Your task to perform on an android device: turn on showing notifications on the lock screen Image 0: 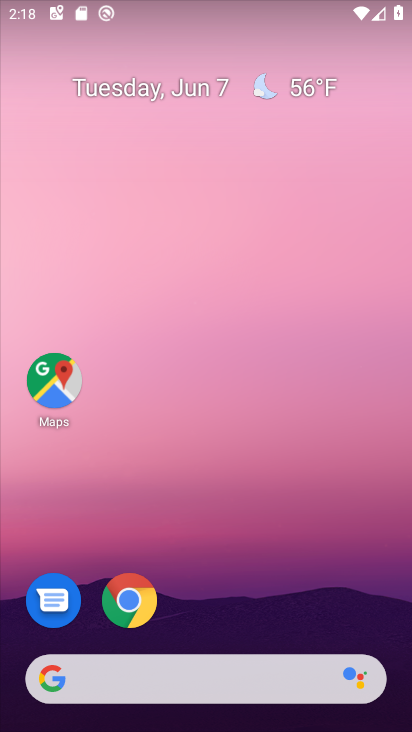
Step 0: drag from (241, 526) to (279, 4)
Your task to perform on an android device: turn on showing notifications on the lock screen Image 1: 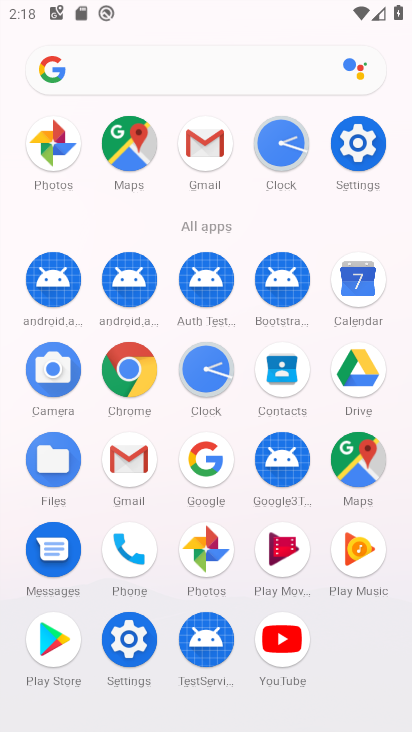
Step 1: click (130, 651)
Your task to perform on an android device: turn on showing notifications on the lock screen Image 2: 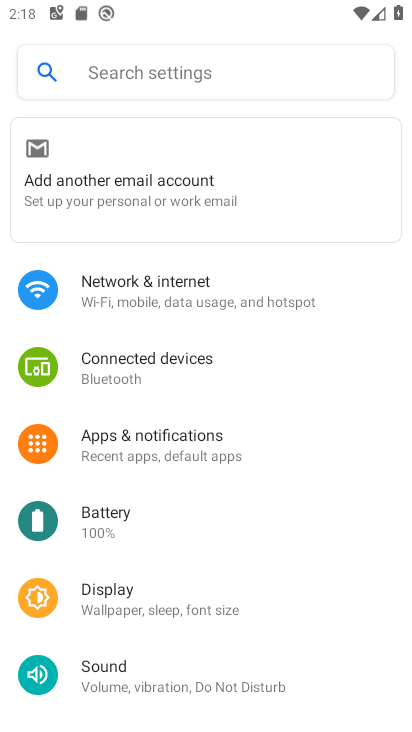
Step 2: click (188, 453)
Your task to perform on an android device: turn on showing notifications on the lock screen Image 3: 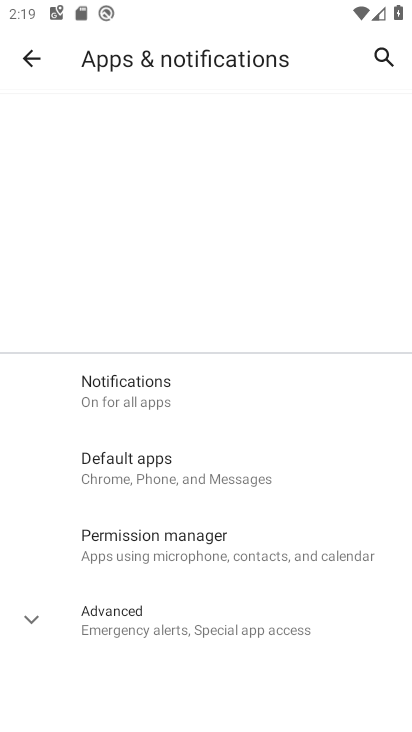
Step 3: click (166, 452)
Your task to perform on an android device: turn on showing notifications on the lock screen Image 4: 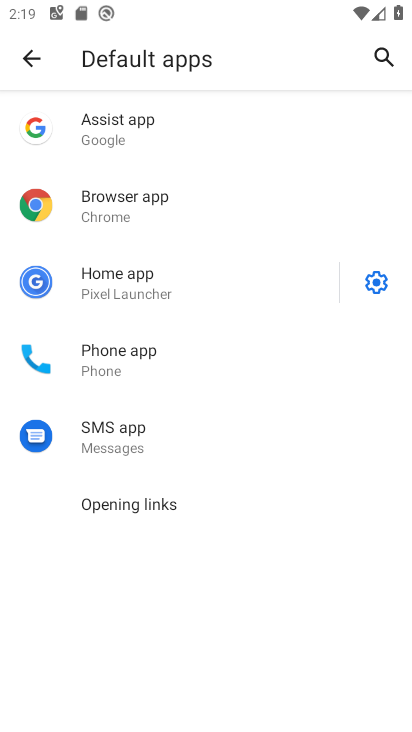
Step 4: click (44, 58)
Your task to perform on an android device: turn on showing notifications on the lock screen Image 5: 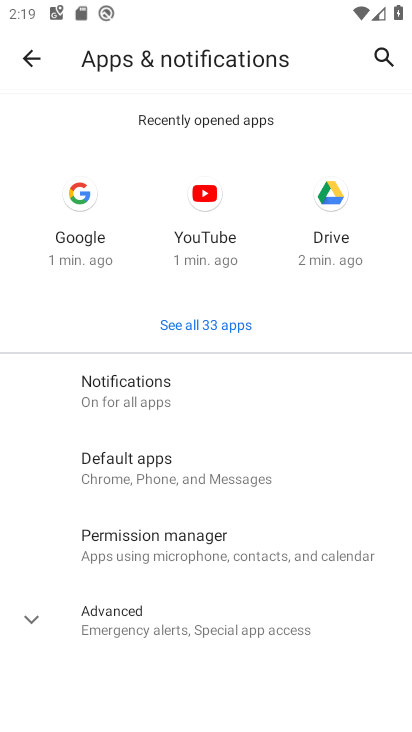
Step 5: click (120, 392)
Your task to perform on an android device: turn on showing notifications on the lock screen Image 6: 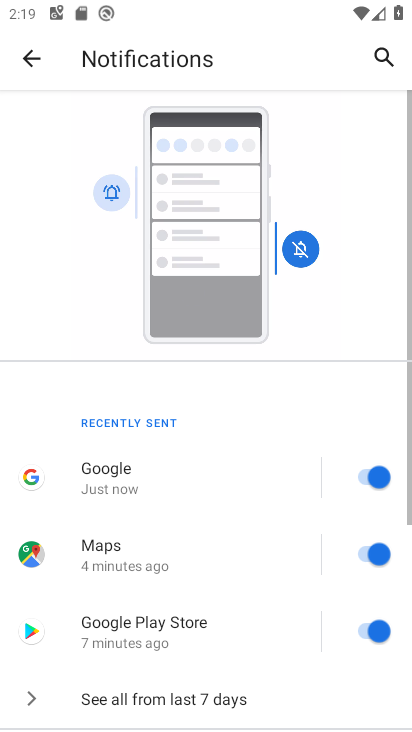
Step 6: drag from (184, 583) to (224, 351)
Your task to perform on an android device: turn on showing notifications on the lock screen Image 7: 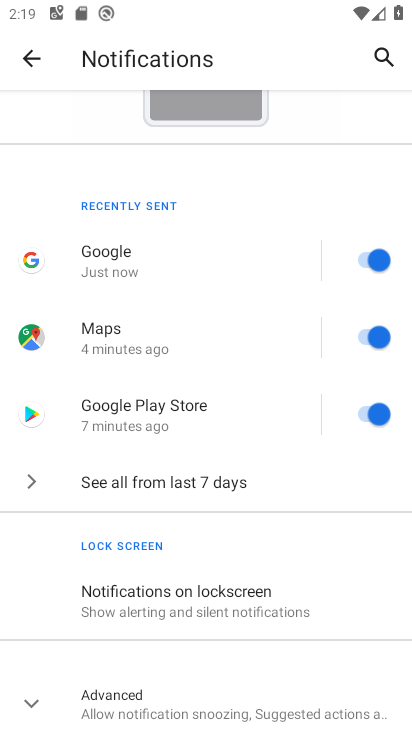
Step 7: click (151, 609)
Your task to perform on an android device: turn on showing notifications on the lock screen Image 8: 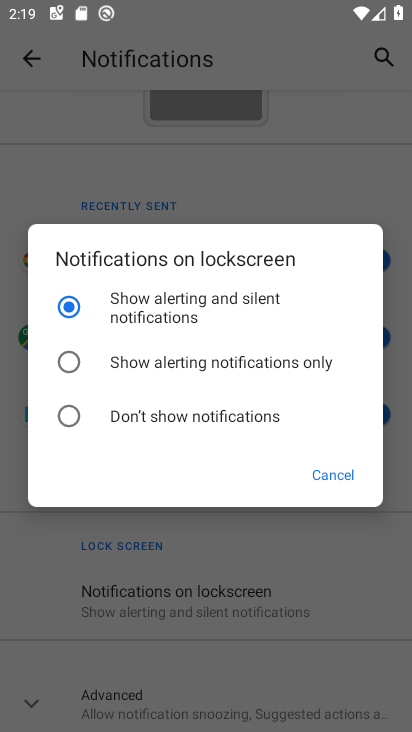
Step 8: click (135, 431)
Your task to perform on an android device: turn on showing notifications on the lock screen Image 9: 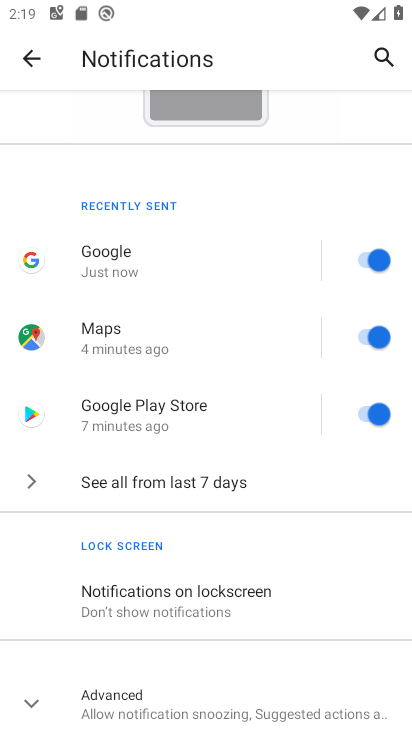
Step 9: task complete